Your task to perform on an android device: Who is the president of the United States? Image 0: 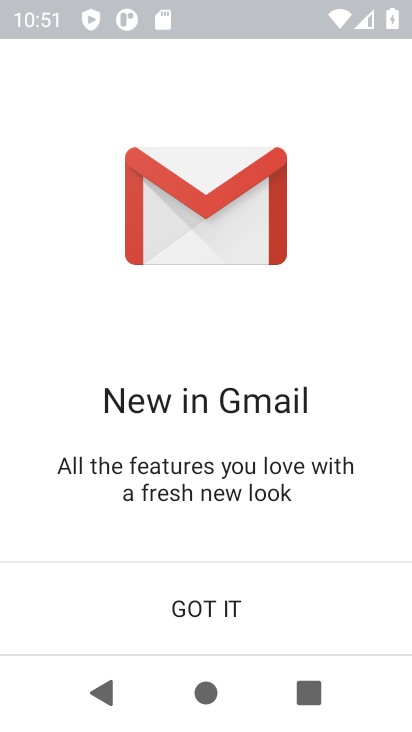
Step 0: press home button
Your task to perform on an android device: Who is the president of the United States? Image 1: 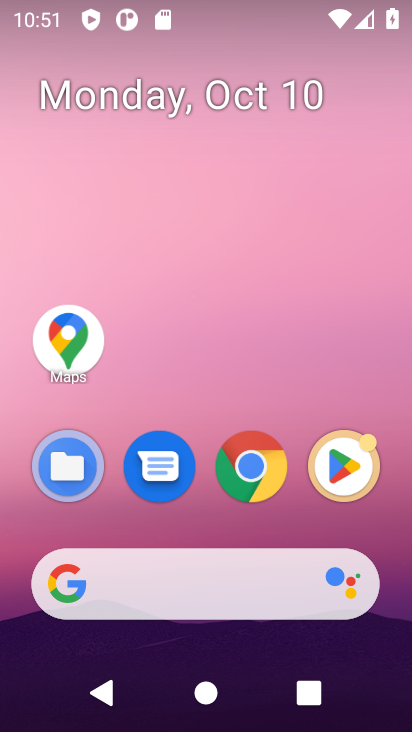
Step 1: click (67, 586)
Your task to perform on an android device: Who is the president of the United States? Image 2: 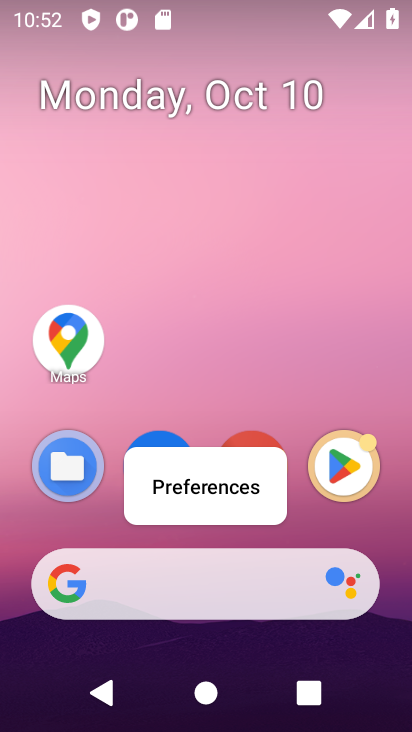
Step 2: click (67, 586)
Your task to perform on an android device: Who is the president of the United States? Image 3: 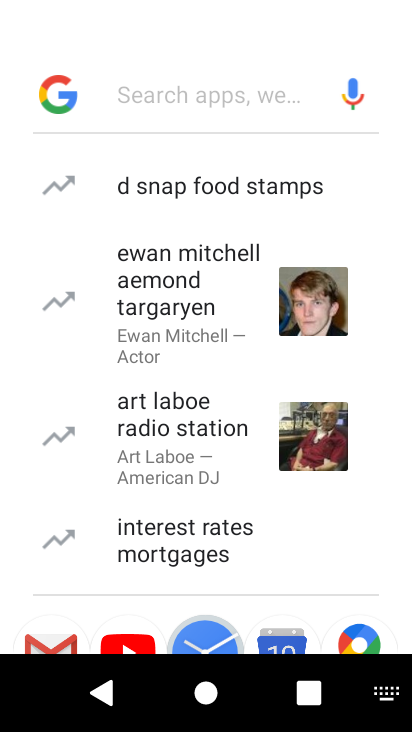
Step 3: type " president of the United States"
Your task to perform on an android device: Who is the president of the United States? Image 4: 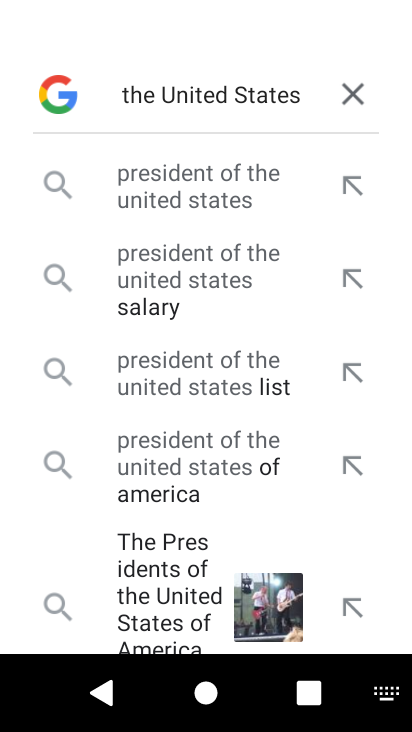
Step 4: press enter
Your task to perform on an android device: Who is the president of the United States? Image 5: 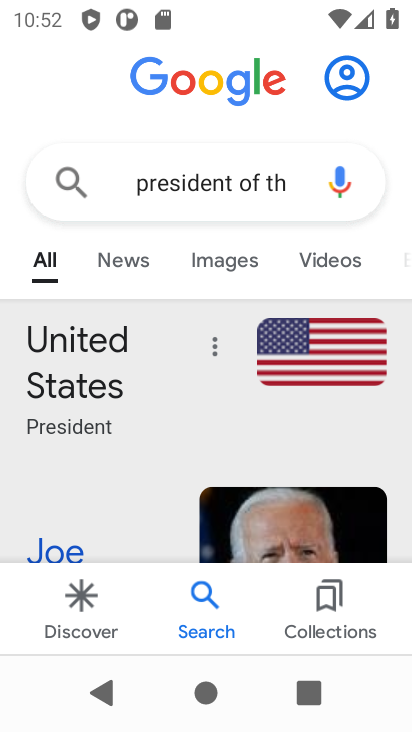
Step 5: task complete